Your task to perform on an android device: show emergency info Image 0: 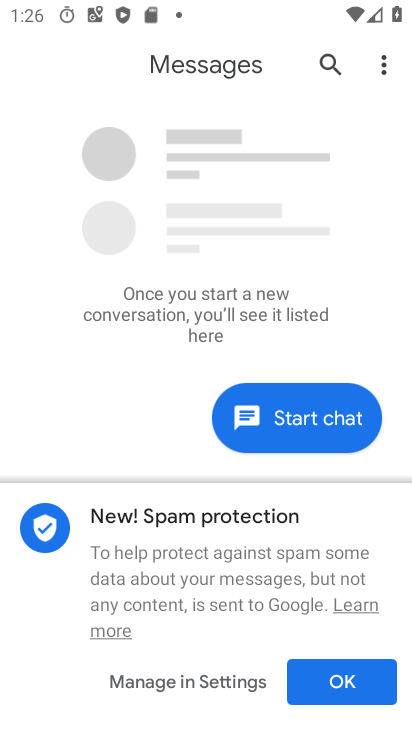
Step 0: press home button
Your task to perform on an android device: show emergency info Image 1: 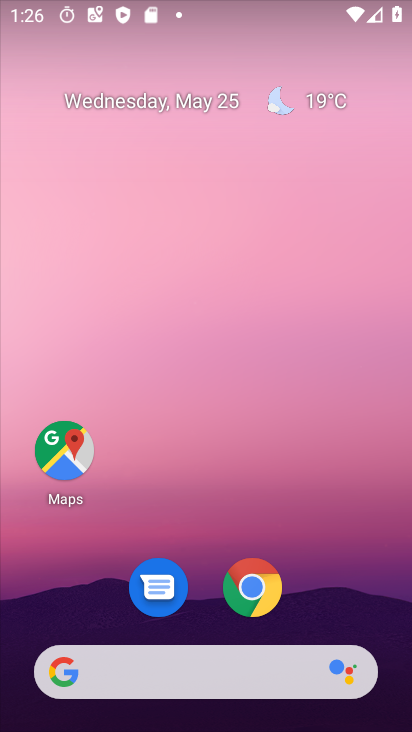
Step 1: drag from (205, 719) to (218, 68)
Your task to perform on an android device: show emergency info Image 2: 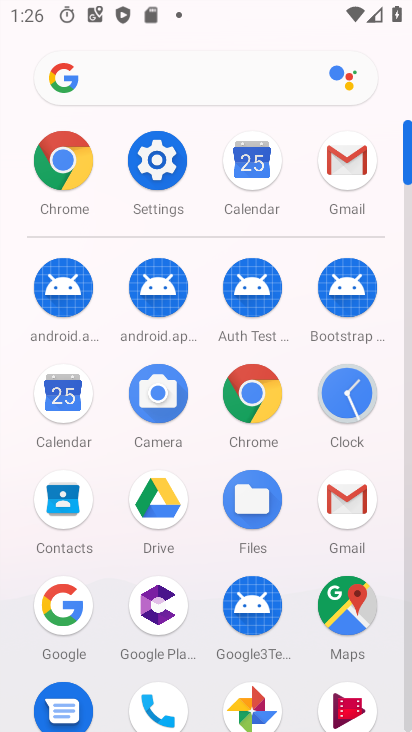
Step 2: click (153, 156)
Your task to perform on an android device: show emergency info Image 3: 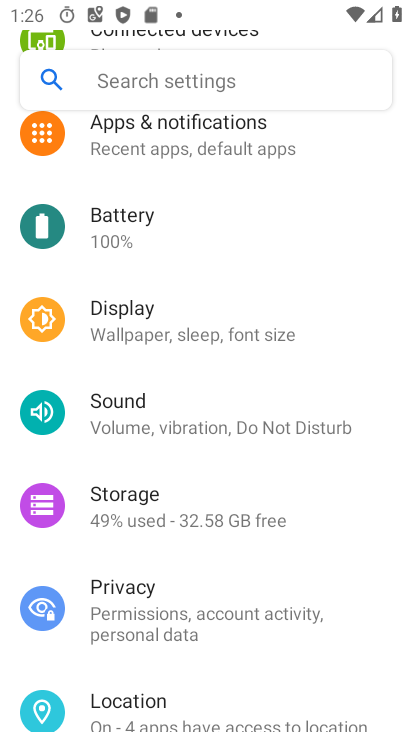
Step 3: drag from (186, 684) to (179, 185)
Your task to perform on an android device: show emergency info Image 4: 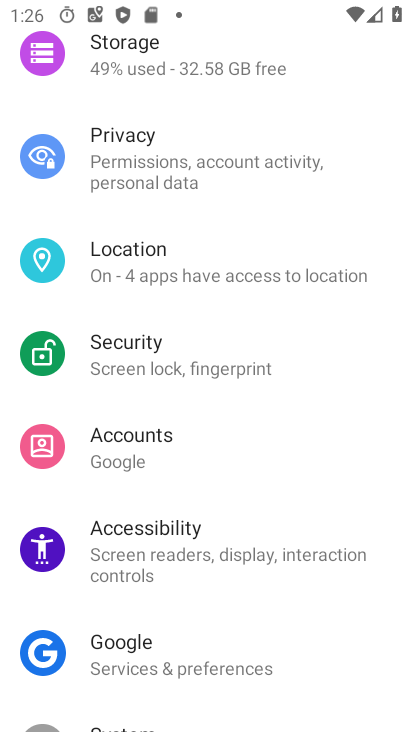
Step 4: drag from (189, 678) to (194, 241)
Your task to perform on an android device: show emergency info Image 5: 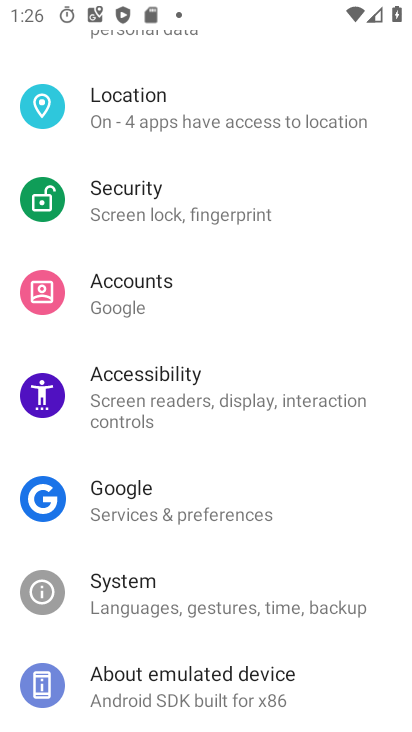
Step 5: drag from (143, 670) to (148, 263)
Your task to perform on an android device: show emergency info Image 6: 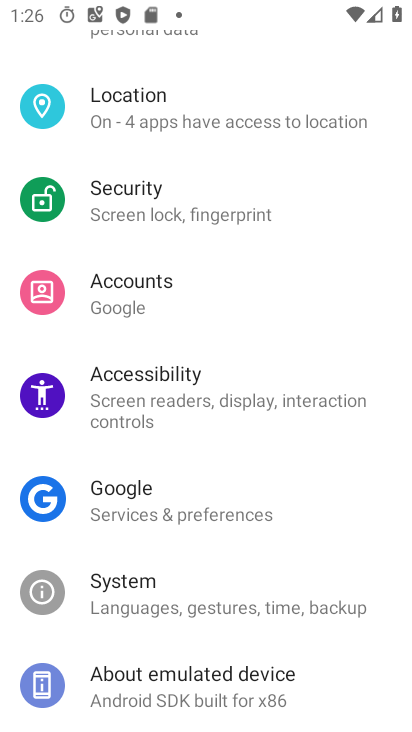
Step 6: click (222, 689)
Your task to perform on an android device: show emergency info Image 7: 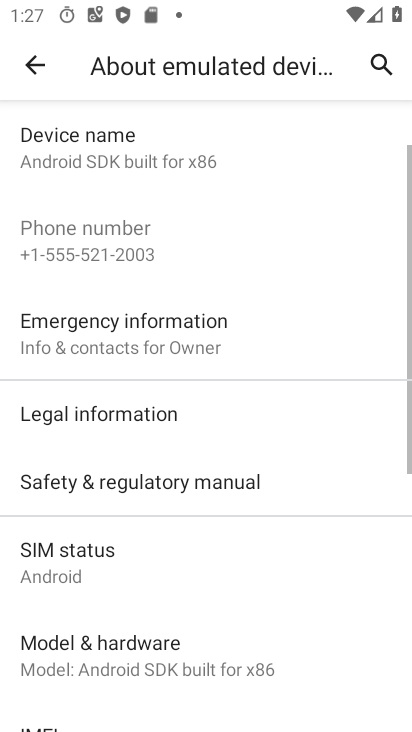
Step 7: click (108, 337)
Your task to perform on an android device: show emergency info Image 8: 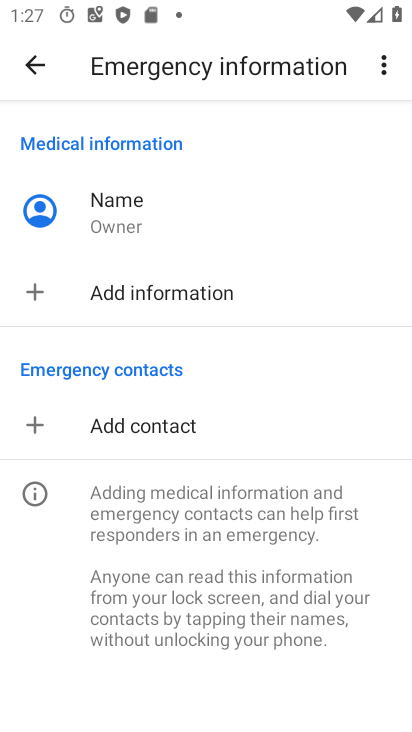
Step 8: task complete